Your task to perform on an android device: Open Chrome and go to settings Image 0: 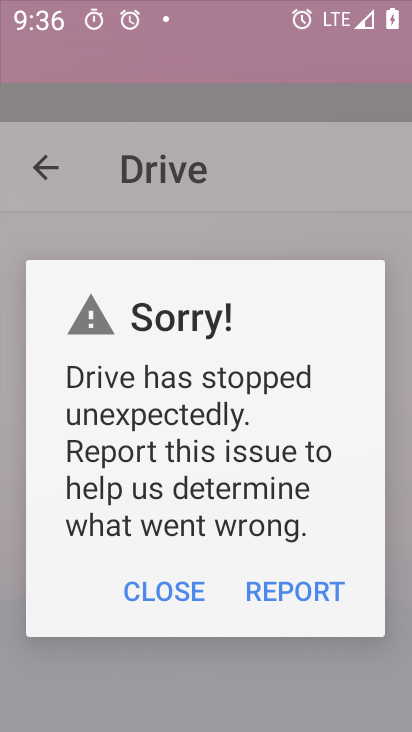
Step 0: press home button
Your task to perform on an android device: Open Chrome and go to settings Image 1: 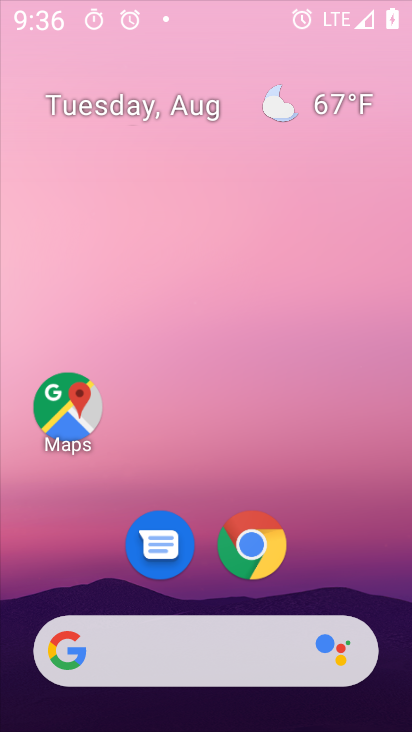
Step 1: press home button
Your task to perform on an android device: Open Chrome and go to settings Image 2: 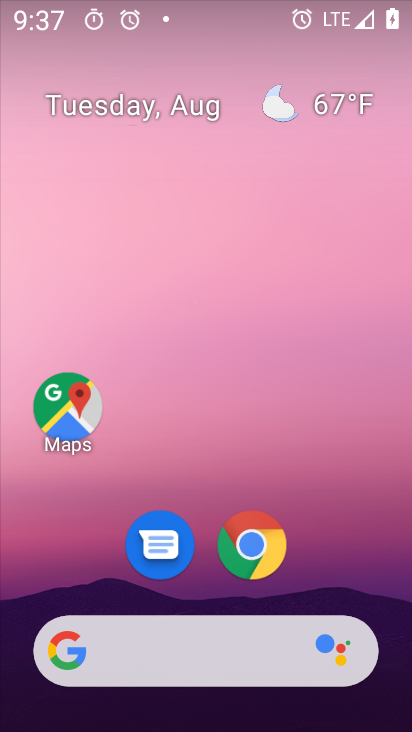
Step 2: drag from (185, 599) to (261, 50)
Your task to perform on an android device: Open Chrome and go to settings Image 3: 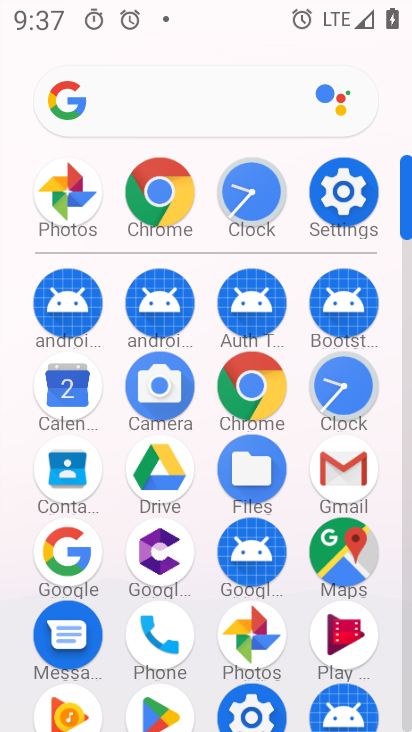
Step 3: click (164, 184)
Your task to perform on an android device: Open Chrome and go to settings Image 4: 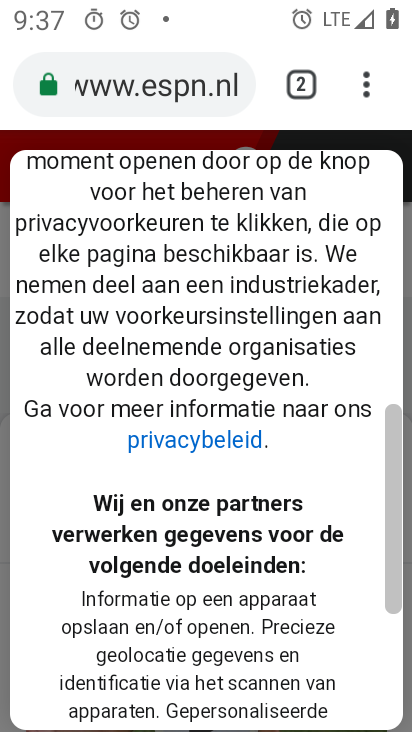
Step 4: click (368, 84)
Your task to perform on an android device: Open Chrome and go to settings Image 5: 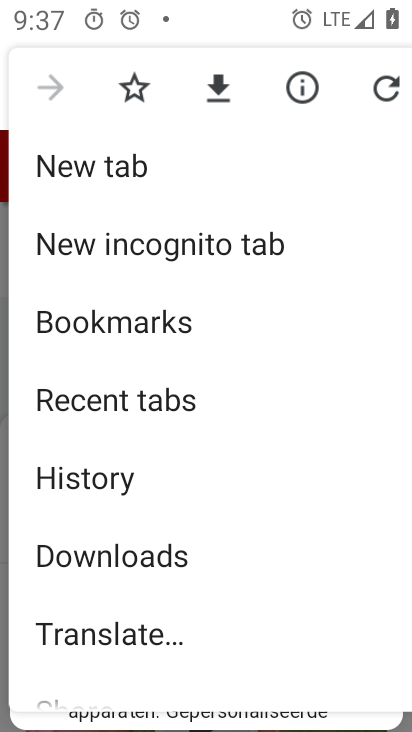
Step 5: drag from (184, 580) to (236, 189)
Your task to perform on an android device: Open Chrome and go to settings Image 6: 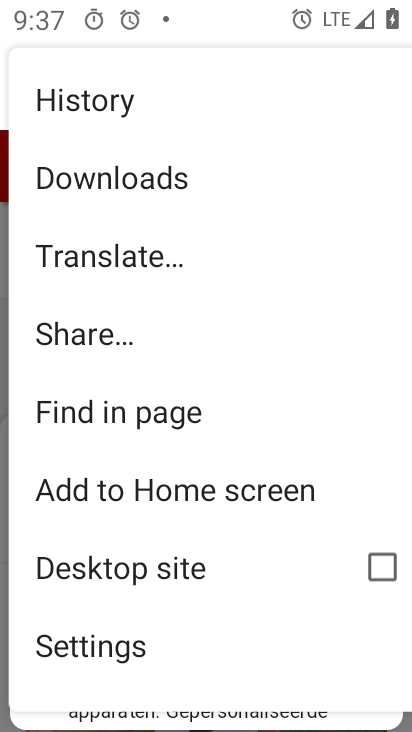
Step 6: click (118, 641)
Your task to perform on an android device: Open Chrome and go to settings Image 7: 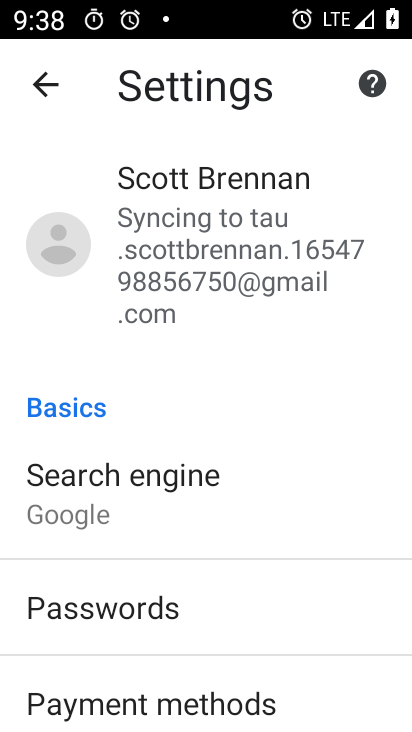
Step 7: task complete